Your task to perform on an android device: Go to network settings Image 0: 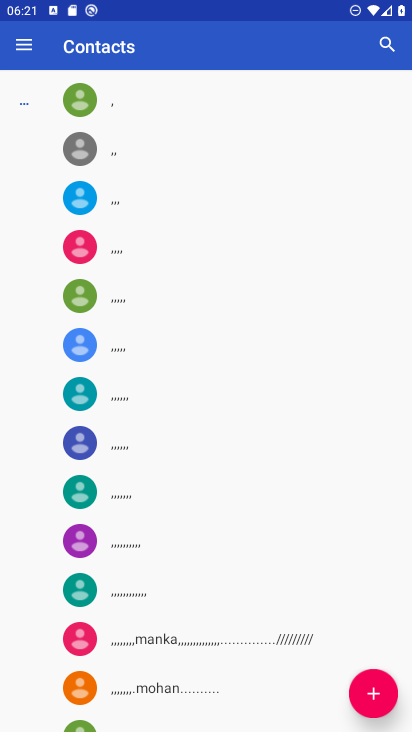
Step 0: press home button
Your task to perform on an android device: Go to network settings Image 1: 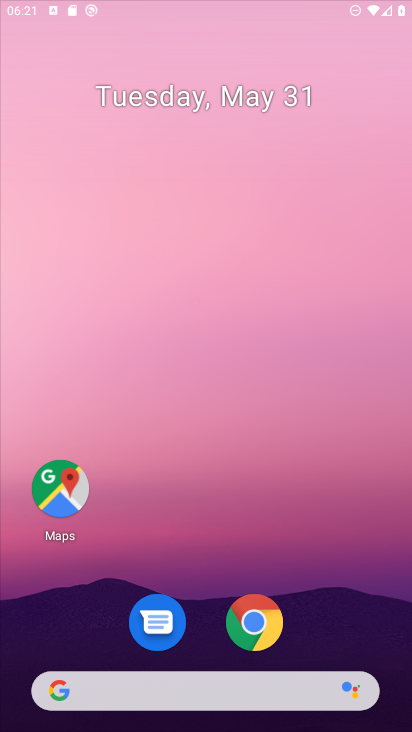
Step 1: drag from (263, 642) to (278, 23)
Your task to perform on an android device: Go to network settings Image 2: 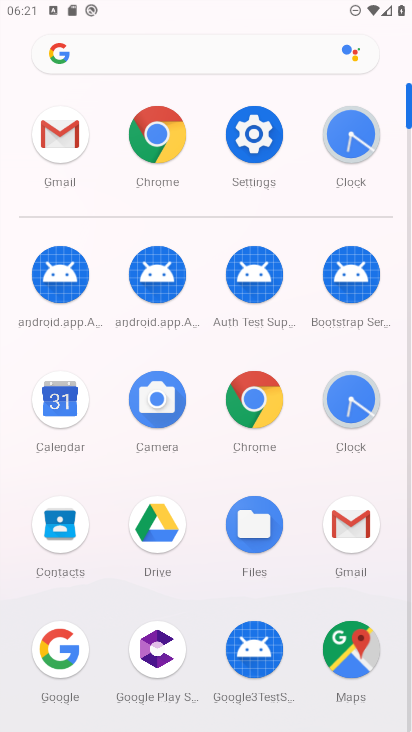
Step 2: click (267, 119)
Your task to perform on an android device: Go to network settings Image 3: 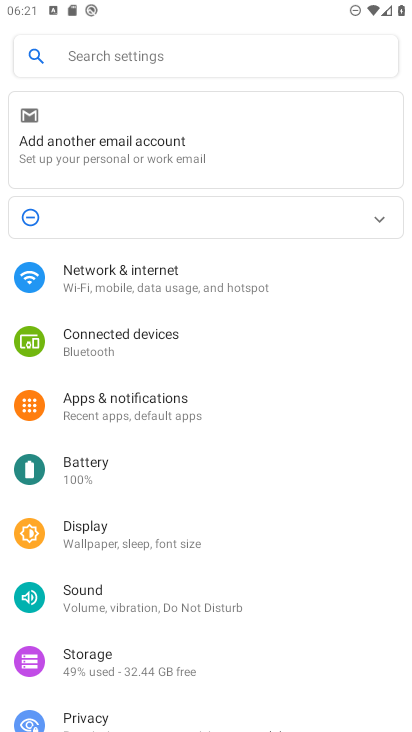
Step 3: click (165, 180)
Your task to perform on an android device: Go to network settings Image 4: 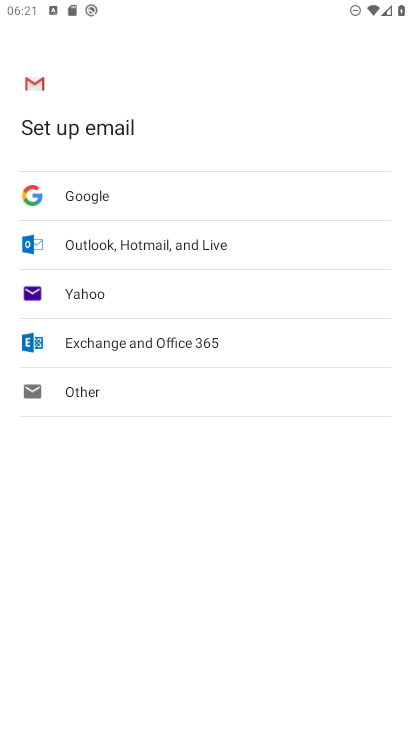
Step 4: press back button
Your task to perform on an android device: Go to network settings Image 5: 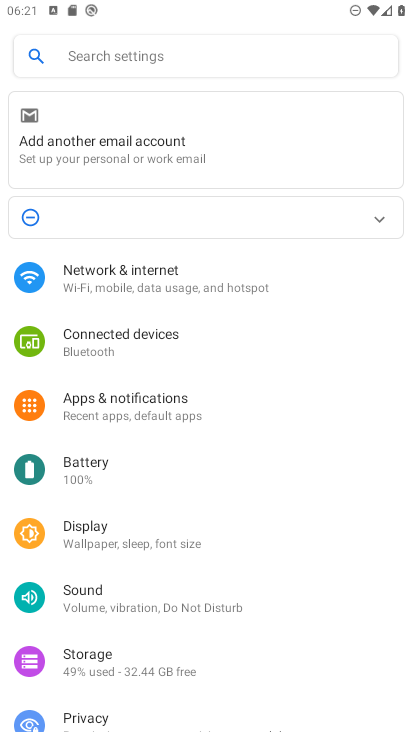
Step 5: click (210, 286)
Your task to perform on an android device: Go to network settings Image 6: 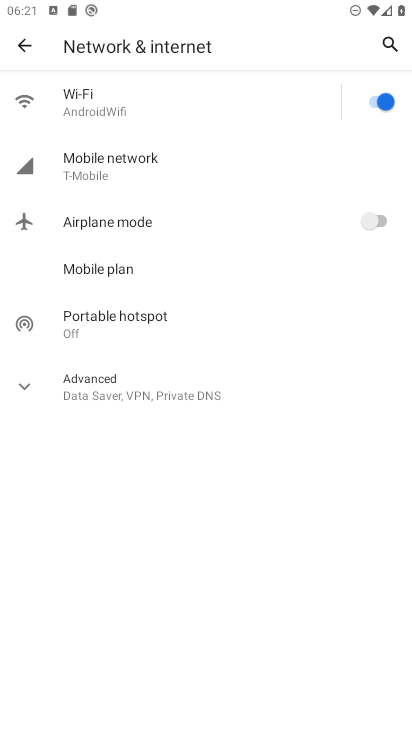
Step 6: task complete